Your task to perform on an android device: turn off data saver in the chrome app Image 0: 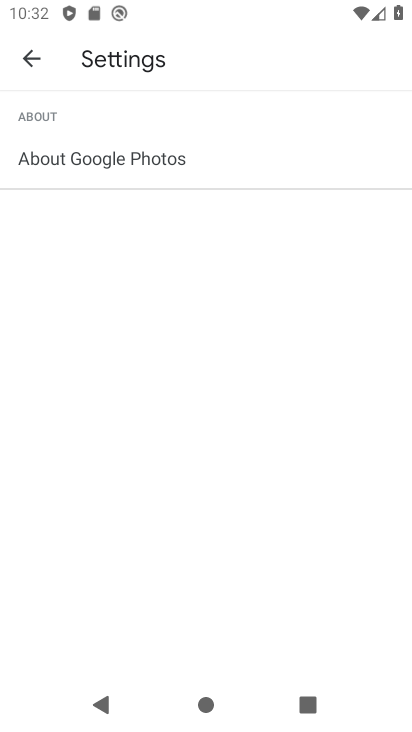
Step 0: press home button
Your task to perform on an android device: turn off data saver in the chrome app Image 1: 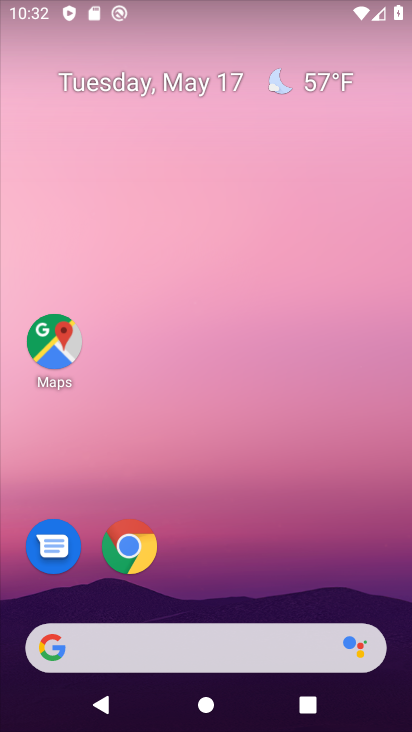
Step 1: click (137, 548)
Your task to perform on an android device: turn off data saver in the chrome app Image 2: 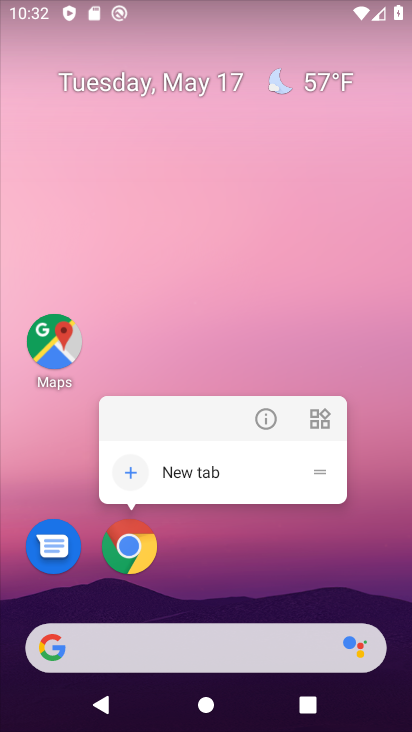
Step 2: click (112, 557)
Your task to perform on an android device: turn off data saver in the chrome app Image 3: 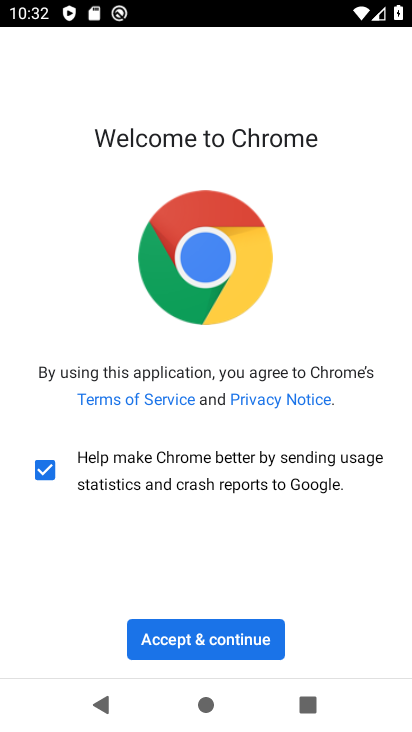
Step 3: click (246, 650)
Your task to perform on an android device: turn off data saver in the chrome app Image 4: 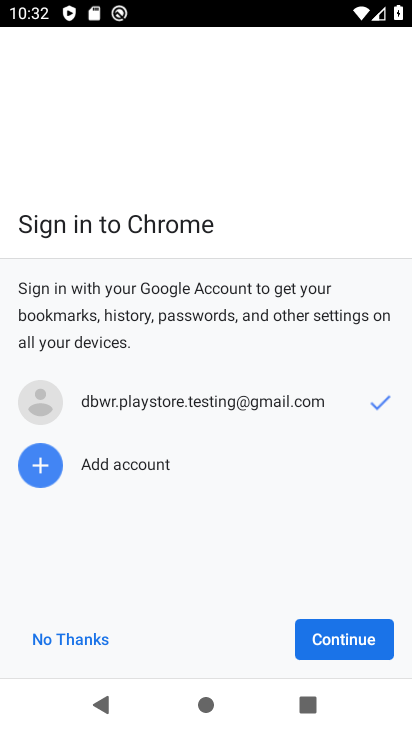
Step 4: click (358, 647)
Your task to perform on an android device: turn off data saver in the chrome app Image 5: 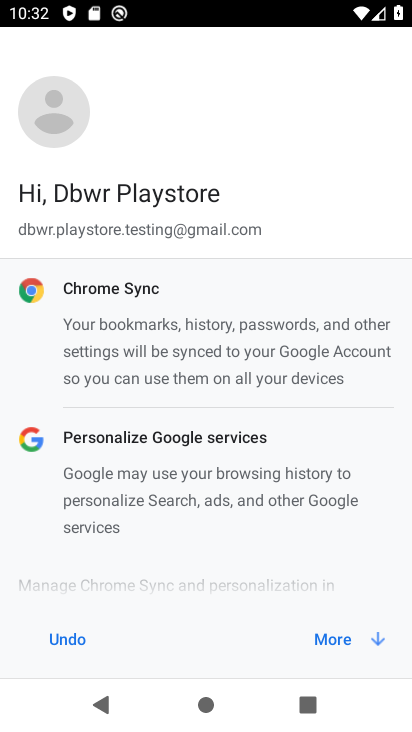
Step 5: click (358, 647)
Your task to perform on an android device: turn off data saver in the chrome app Image 6: 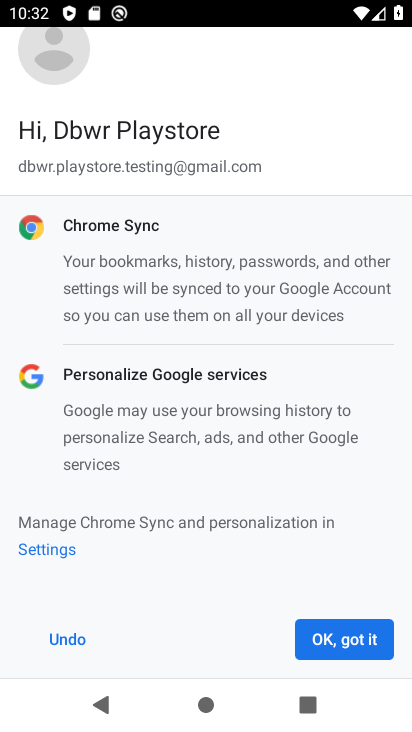
Step 6: click (358, 647)
Your task to perform on an android device: turn off data saver in the chrome app Image 7: 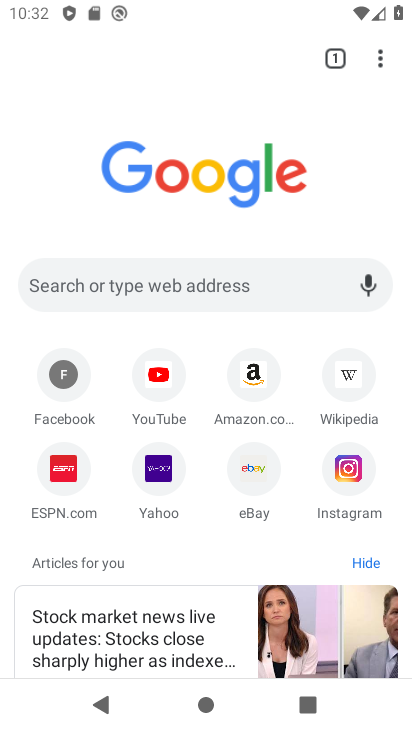
Step 7: drag from (378, 64) to (253, 490)
Your task to perform on an android device: turn off data saver in the chrome app Image 8: 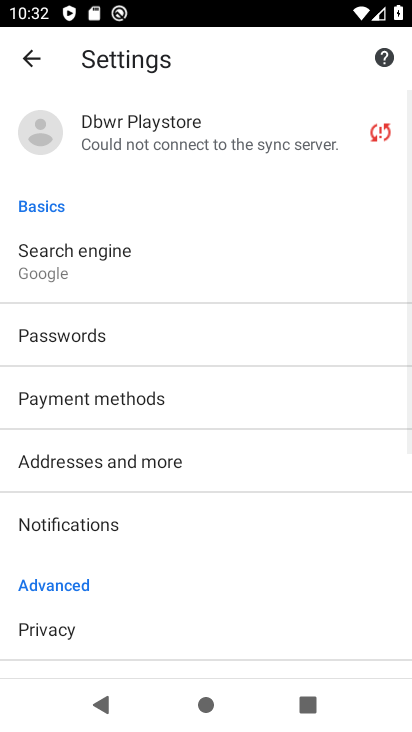
Step 8: drag from (166, 617) to (167, 231)
Your task to perform on an android device: turn off data saver in the chrome app Image 9: 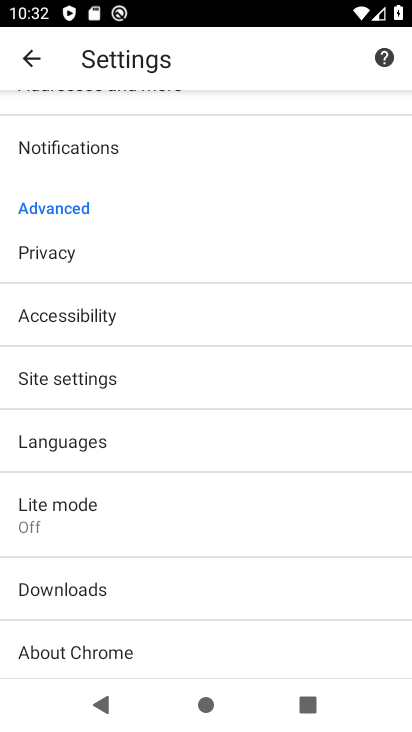
Step 9: click (125, 518)
Your task to perform on an android device: turn off data saver in the chrome app Image 10: 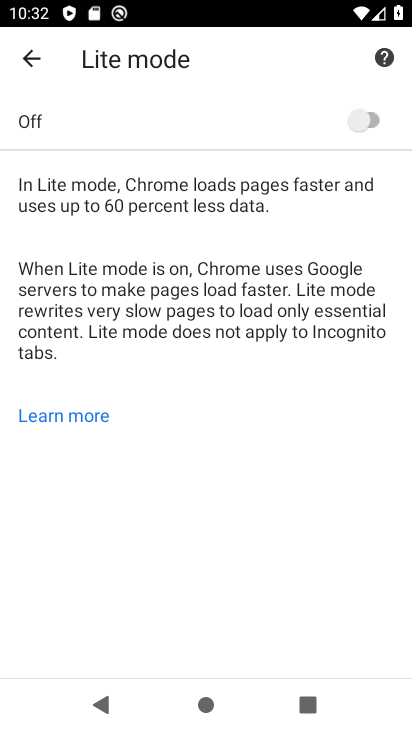
Step 10: task complete